Your task to perform on an android device: toggle sleep mode Image 0: 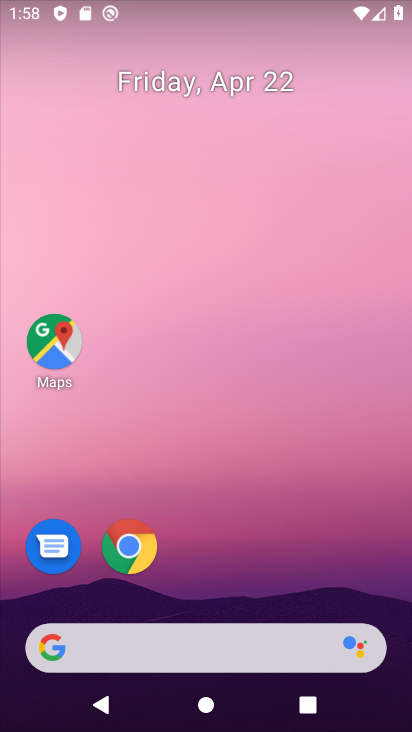
Step 0: drag from (232, 573) to (235, 45)
Your task to perform on an android device: toggle sleep mode Image 1: 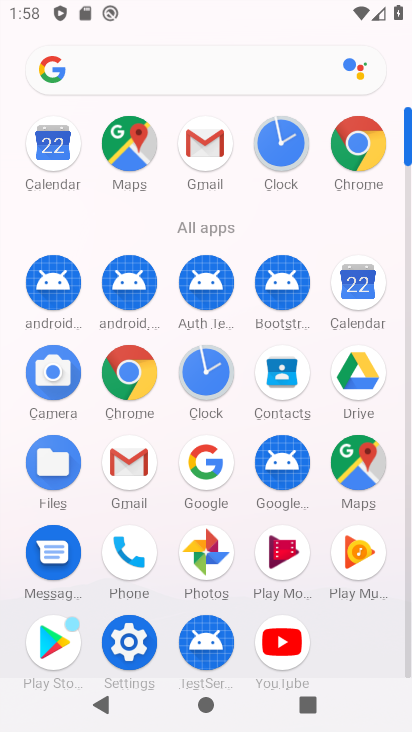
Step 1: click (135, 613)
Your task to perform on an android device: toggle sleep mode Image 2: 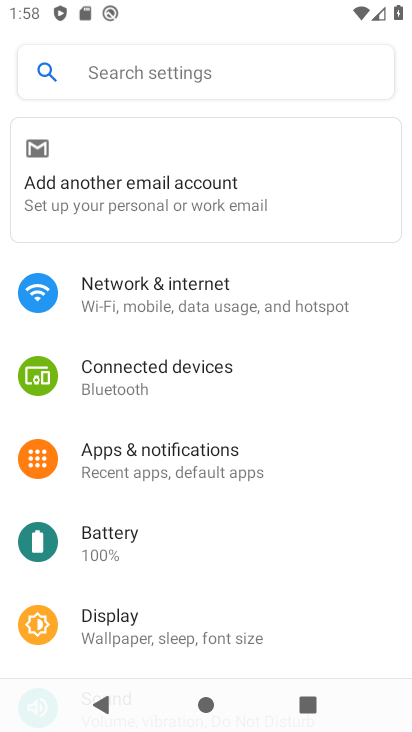
Step 2: click (193, 619)
Your task to perform on an android device: toggle sleep mode Image 3: 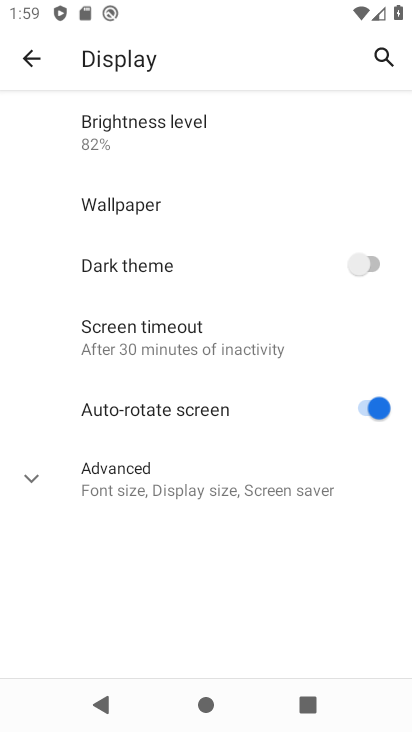
Step 3: task complete